Your task to perform on an android device: Open Google Image 0: 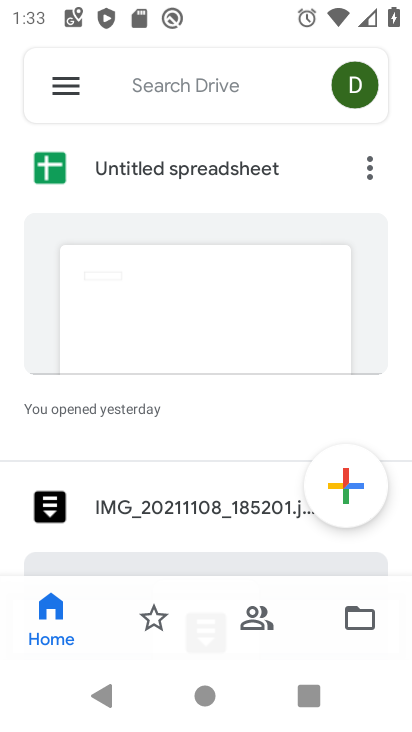
Step 0: press home button
Your task to perform on an android device: Open Google Image 1: 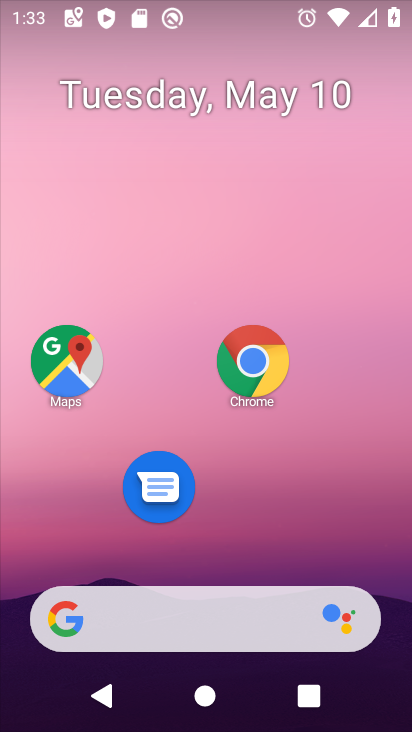
Step 1: click (240, 346)
Your task to perform on an android device: Open Google Image 2: 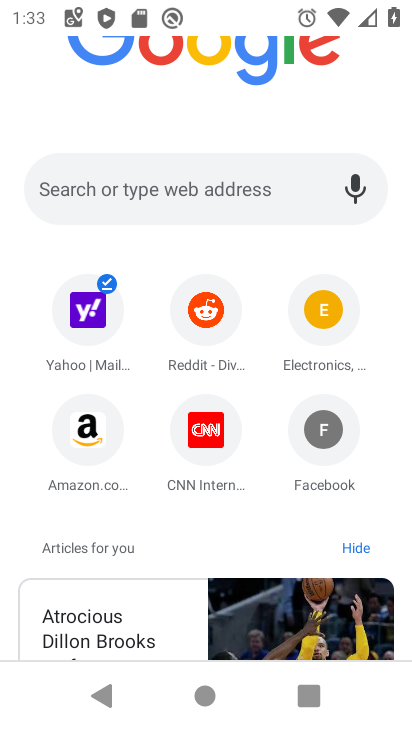
Step 2: click (209, 182)
Your task to perform on an android device: Open Google Image 3: 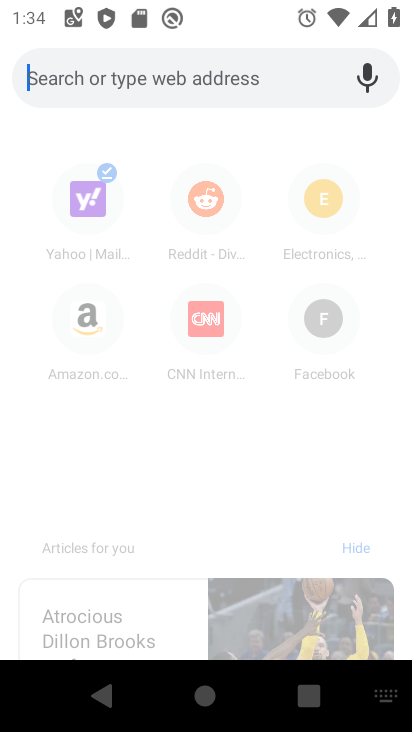
Step 3: type "google"
Your task to perform on an android device: Open Google Image 4: 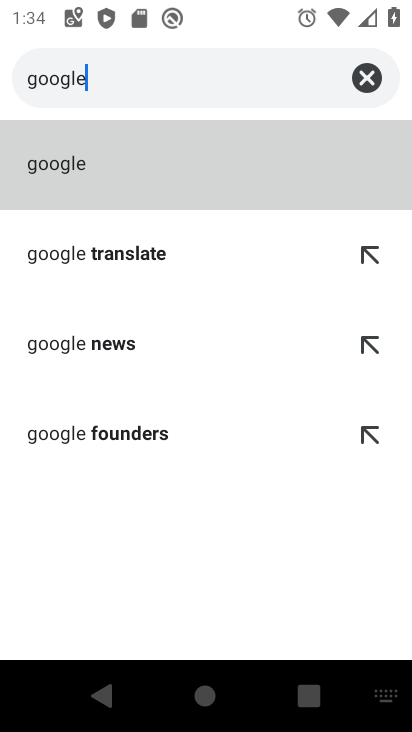
Step 4: click (173, 192)
Your task to perform on an android device: Open Google Image 5: 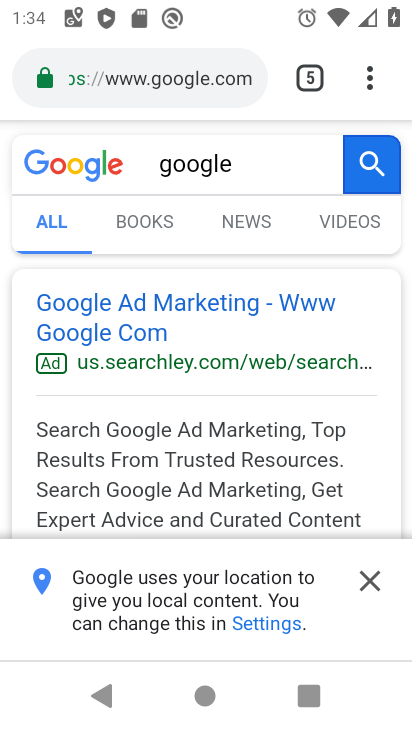
Step 5: task complete